Your task to perform on an android device: Open the Play Movies app and select the watchlist tab. Image 0: 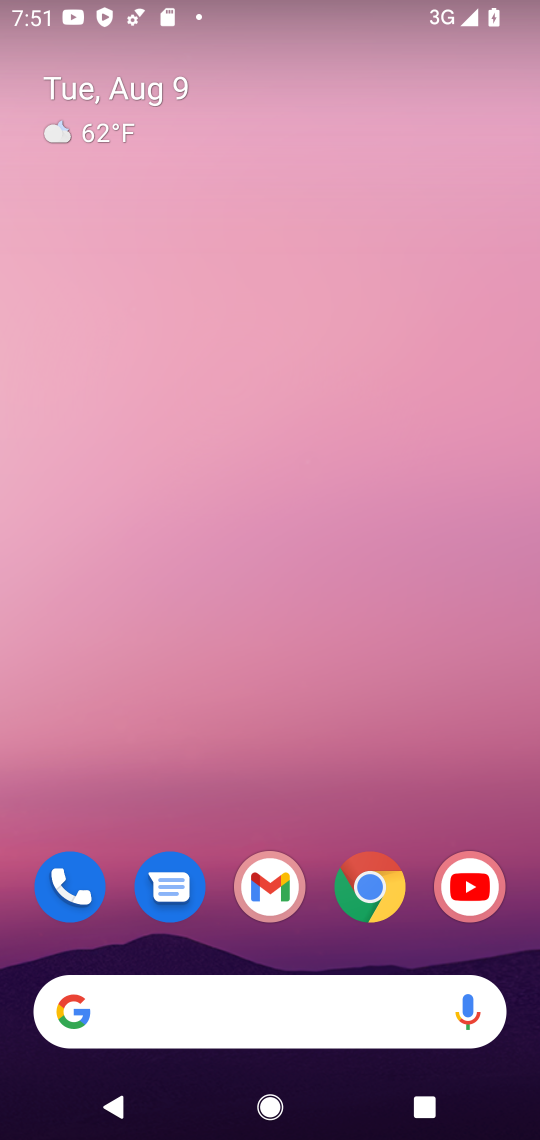
Step 0: drag from (312, 810) to (306, 11)
Your task to perform on an android device: Open the Play Movies app and select the watchlist tab. Image 1: 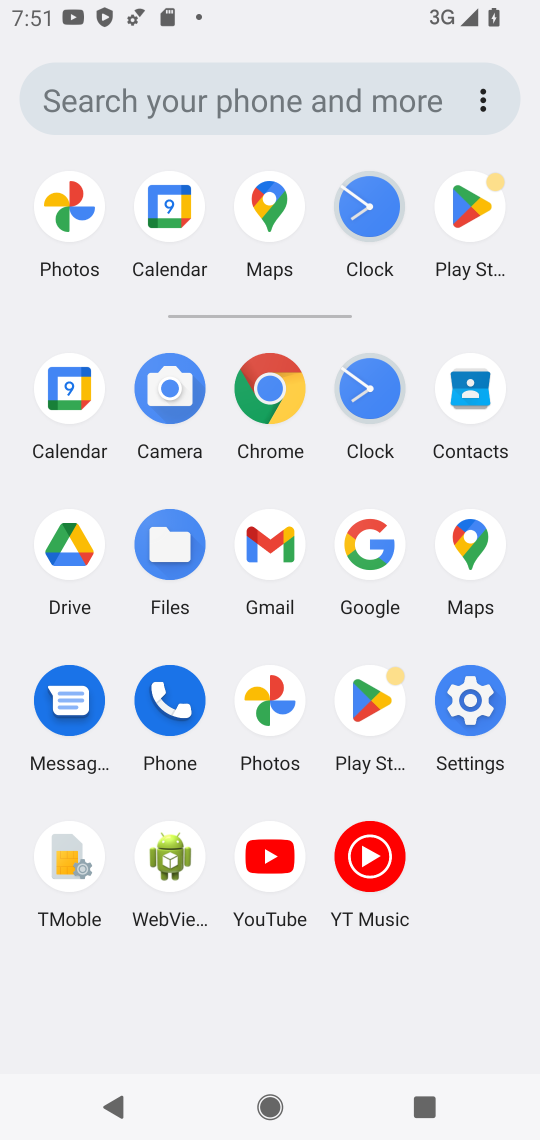
Step 1: task complete